Your task to perform on an android device: turn off picture-in-picture Image 0: 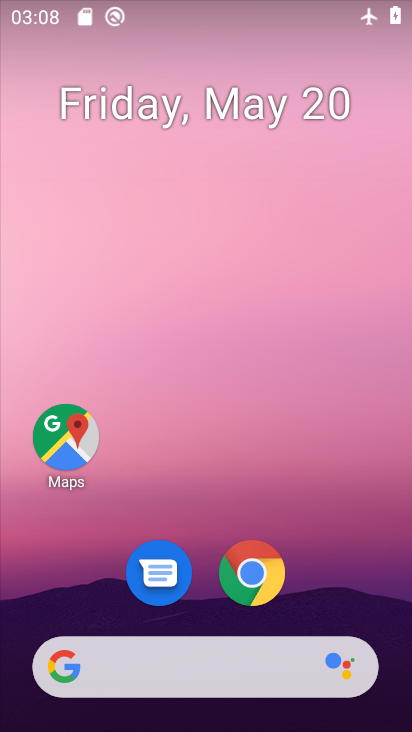
Step 0: click (262, 567)
Your task to perform on an android device: turn off picture-in-picture Image 1: 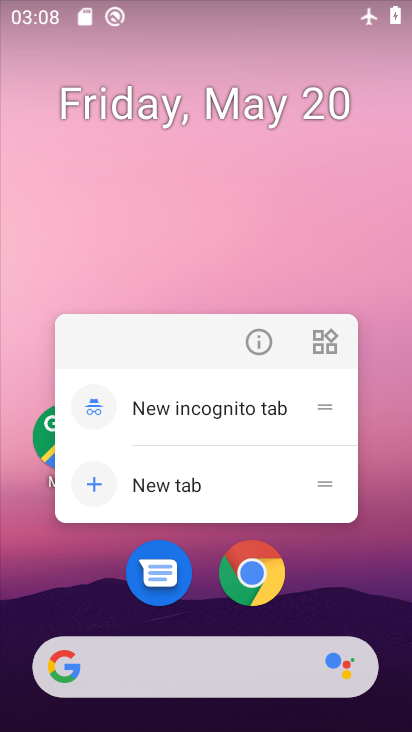
Step 1: click (248, 349)
Your task to perform on an android device: turn off picture-in-picture Image 2: 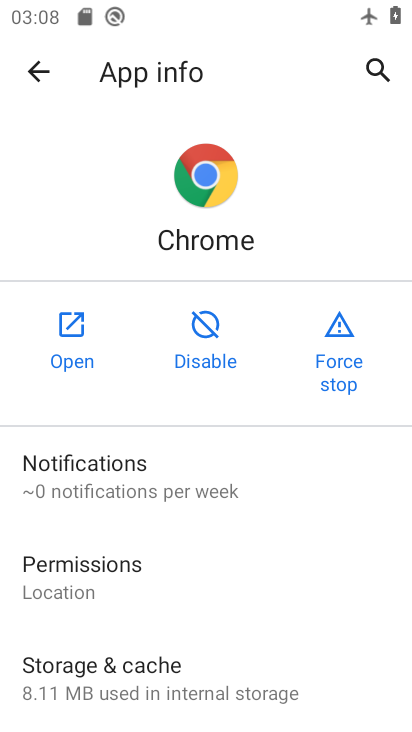
Step 2: drag from (162, 685) to (184, 483)
Your task to perform on an android device: turn off picture-in-picture Image 3: 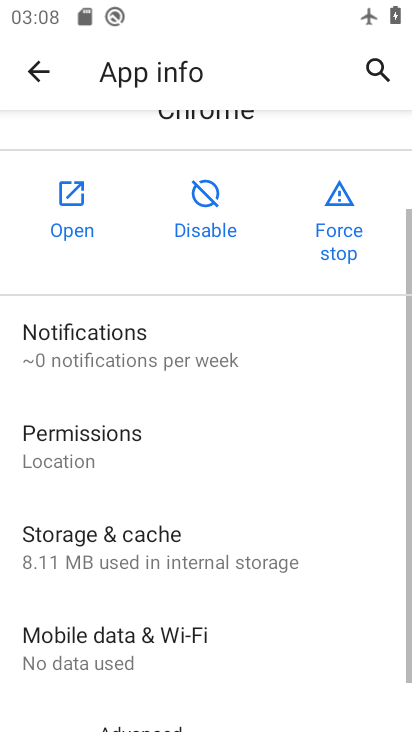
Step 3: drag from (157, 668) to (219, 419)
Your task to perform on an android device: turn off picture-in-picture Image 4: 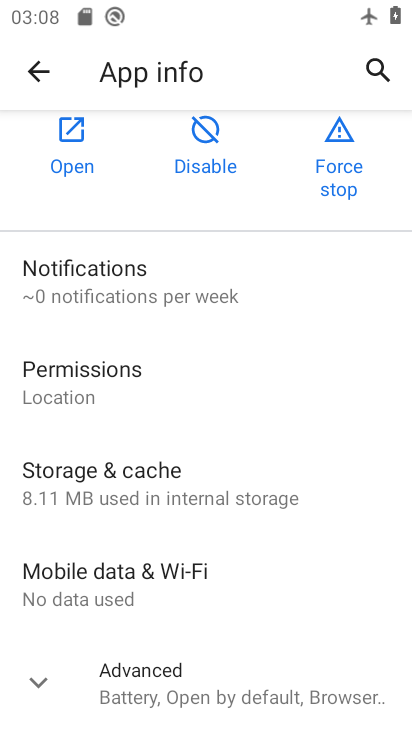
Step 4: click (159, 675)
Your task to perform on an android device: turn off picture-in-picture Image 5: 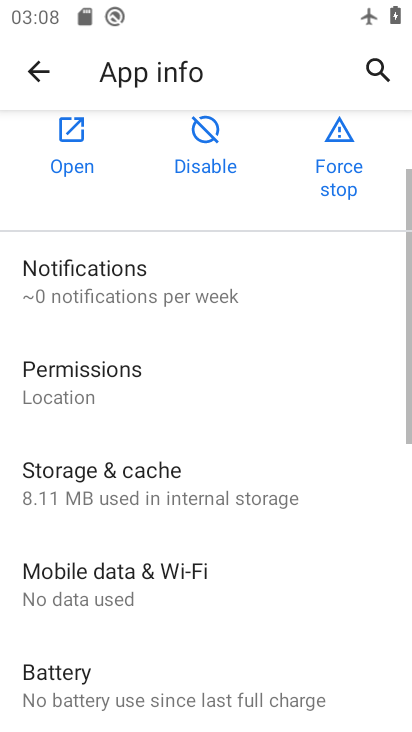
Step 5: drag from (167, 646) to (207, 418)
Your task to perform on an android device: turn off picture-in-picture Image 6: 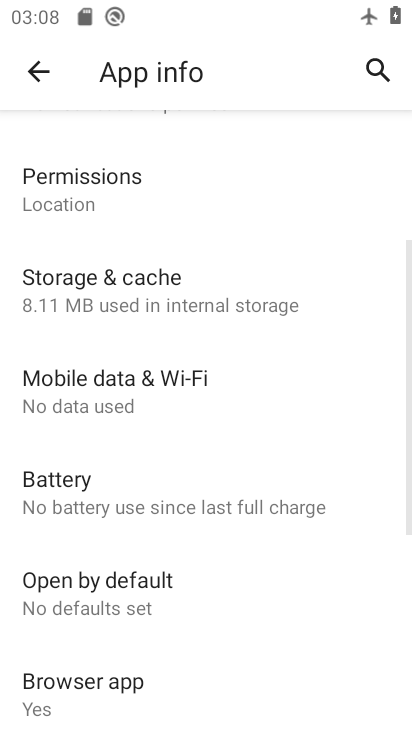
Step 6: drag from (155, 579) to (188, 313)
Your task to perform on an android device: turn off picture-in-picture Image 7: 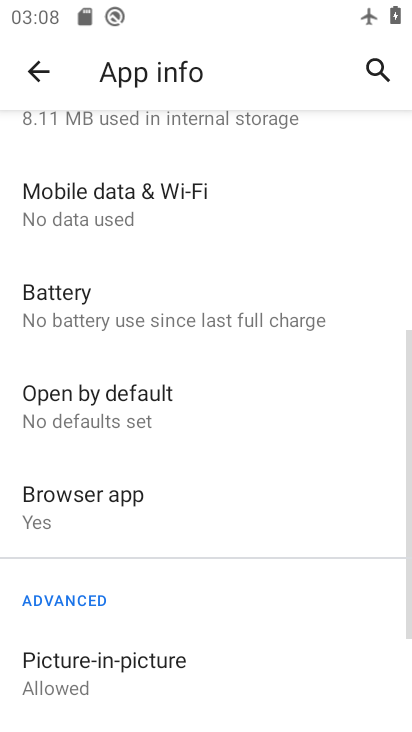
Step 7: drag from (142, 595) to (172, 476)
Your task to perform on an android device: turn off picture-in-picture Image 8: 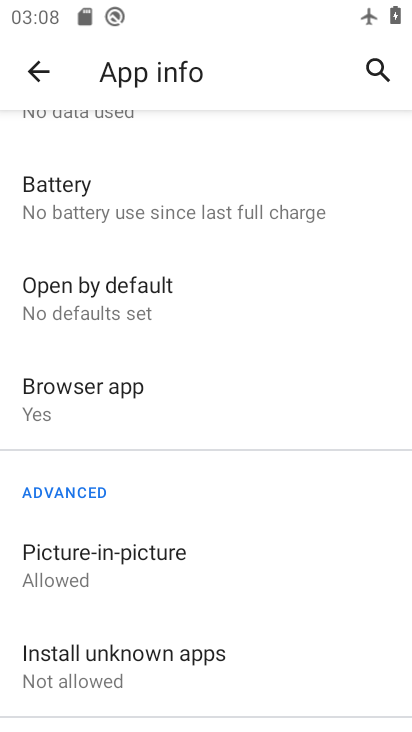
Step 8: click (162, 539)
Your task to perform on an android device: turn off picture-in-picture Image 9: 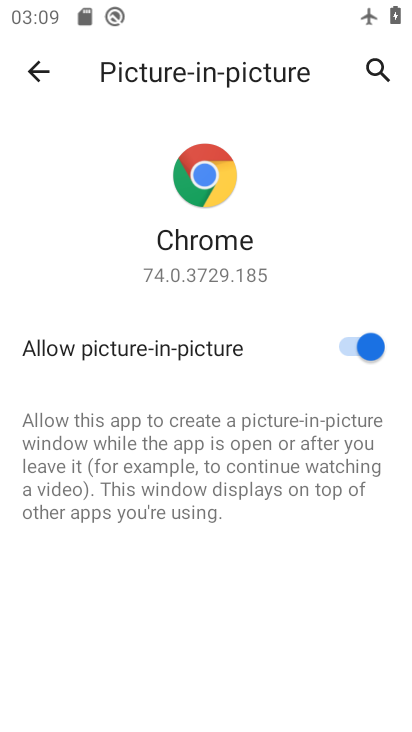
Step 9: click (348, 350)
Your task to perform on an android device: turn off picture-in-picture Image 10: 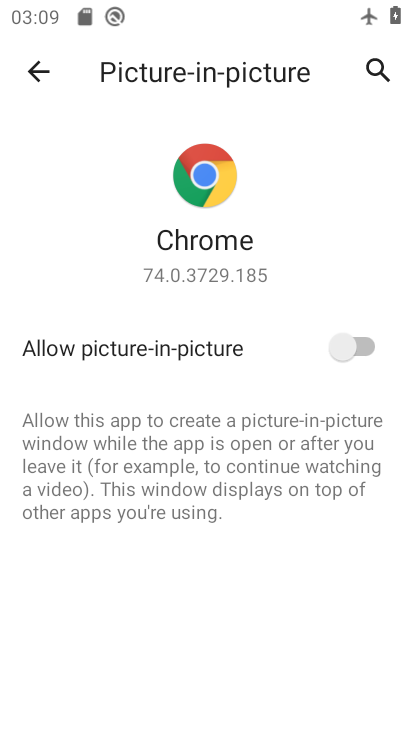
Step 10: task complete